Your task to perform on an android device: Go to Reddit.com Image 0: 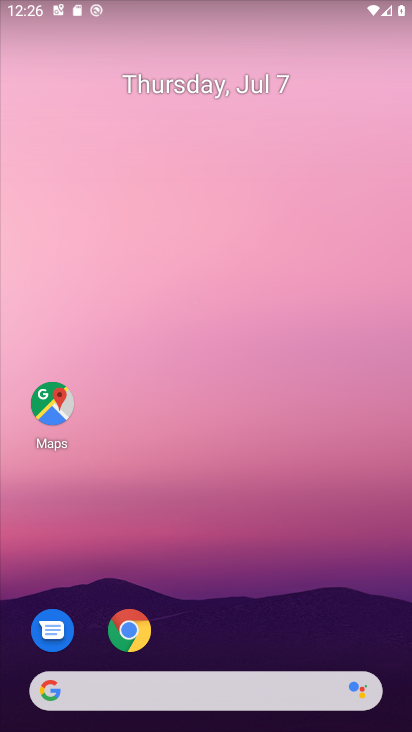
Step 0: drag from (335, 630) to (319, 259)
Your task to perform on an android device: Go to Reddit.com Image 1: 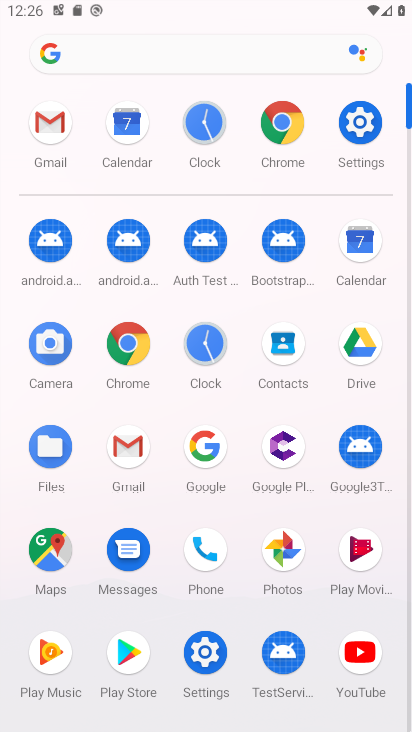
Step 1: click (280, 125)
Your task to perform on an android device: Go to Reddit.com Image 2: 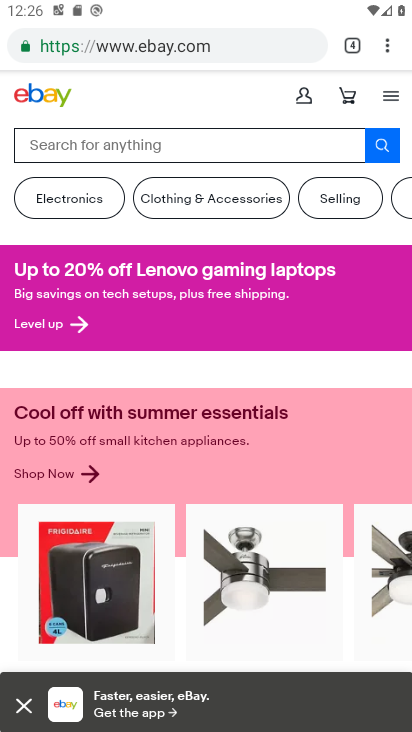
Step 2: click (381, 46)
Your task to perform on an android device: Go to Reddit.com Image 3: 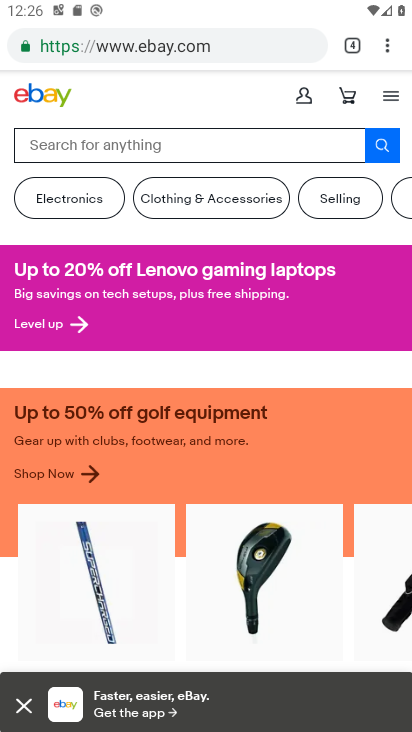
Step 3: click (374, 44)
Your task to perform on an android device: Go to Reddit.com Image 4: 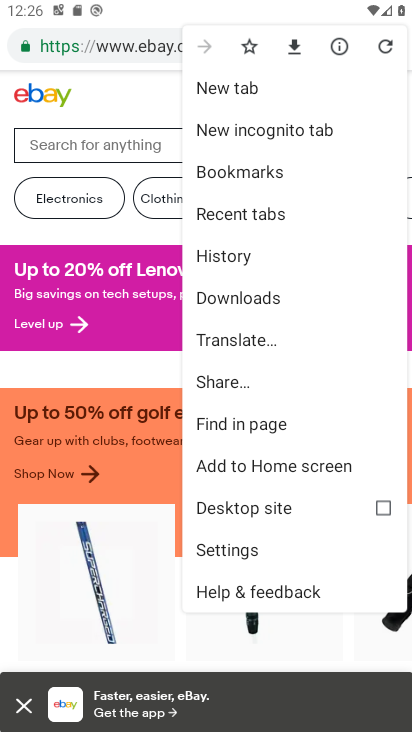
Step 4: click (241, 80)
Your task to perform on an android device: Go to Reddit.com Image 5: 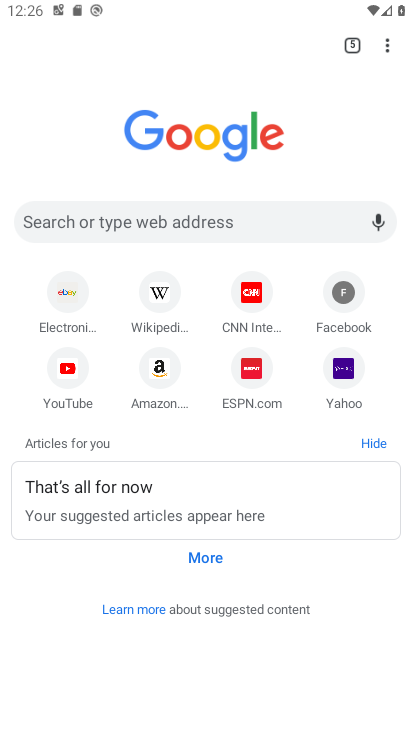
Step 5: click (167, 217)
Your task to perform on an android device: Go to Reddit.com Image 6: 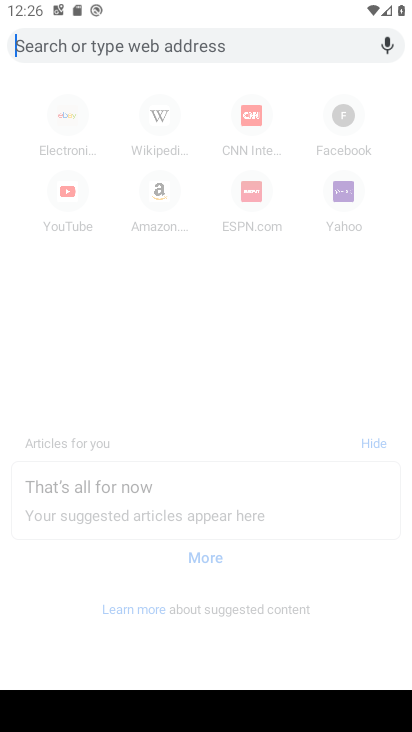
Step 6: type "Reddit.com "
Your task to perform on an android device: Go to Reddit.com Image 7: 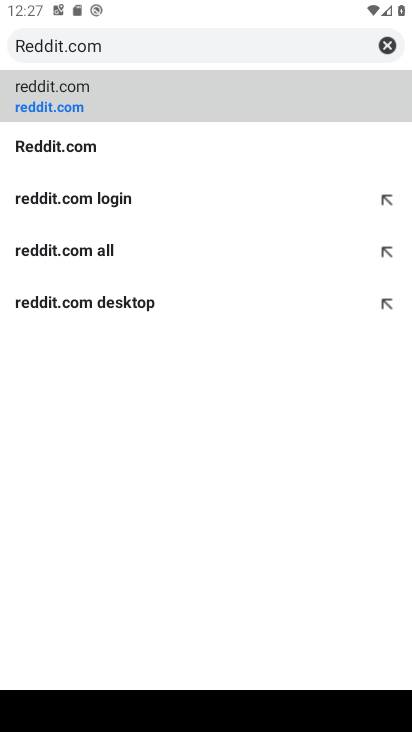
Step 7: click (56, 100)
Your task to perform on an android device: Go to Reddit.com Image 8: 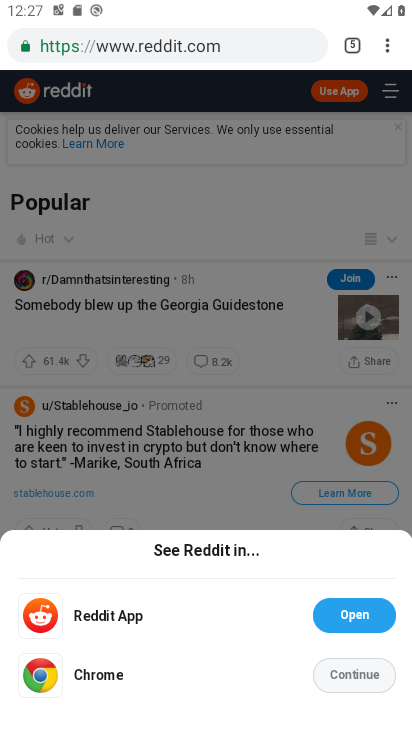
Step 8: click (179, 219)
Your task to perform on an android device: Go to Reddit.com Image 9: 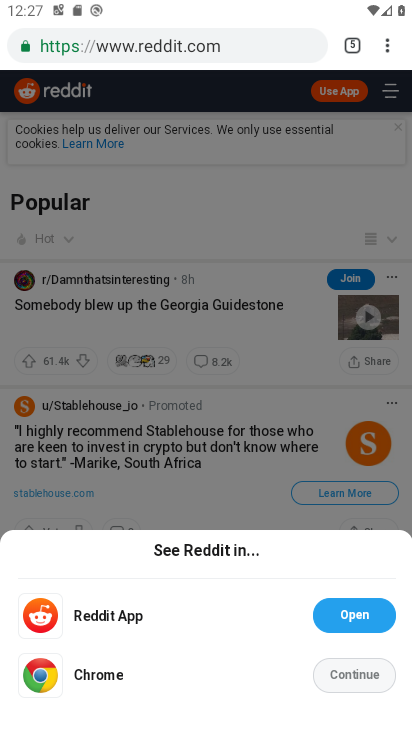
Step 9: task complete